Your task to perform on an android device: turn on location history Image 0: 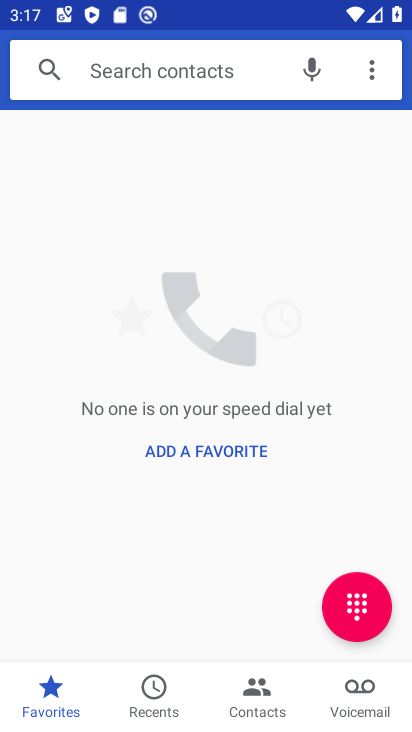
Step 0: press home button
Your task to perform on an android device: turn on location history Image 1: 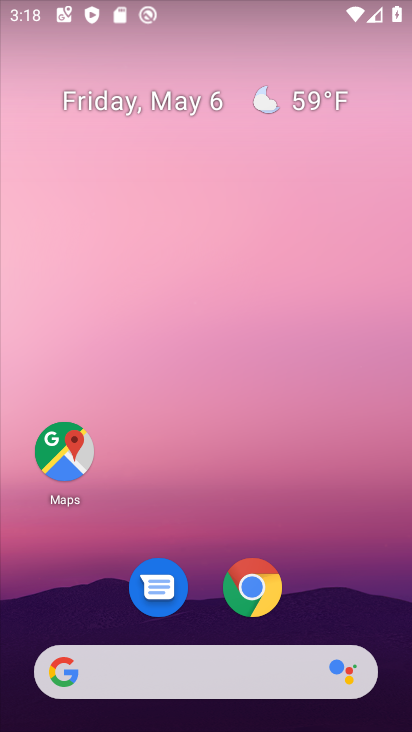
Step 1: drag from (337, 611) to (324, 136)
Your task to perform on an android device: turn on location history Image 2: 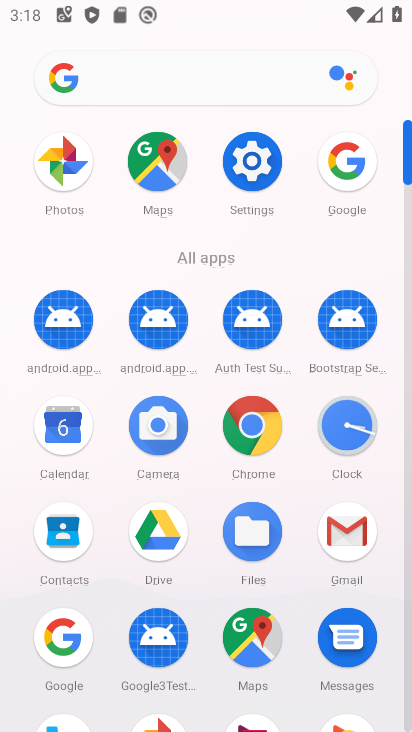
Step 2: click (247, 173)
Your task to perform on an android device: turn on location history Image 3: 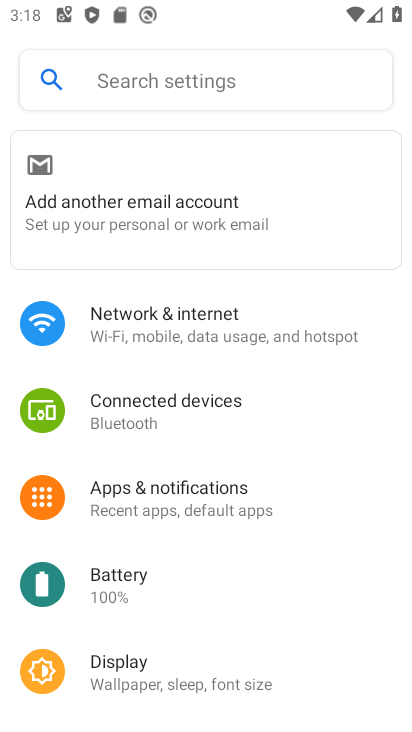
Step 3: drag from (186, 650) to (240, 302)
Your task to perform on an android device: turn on location history Image 4: 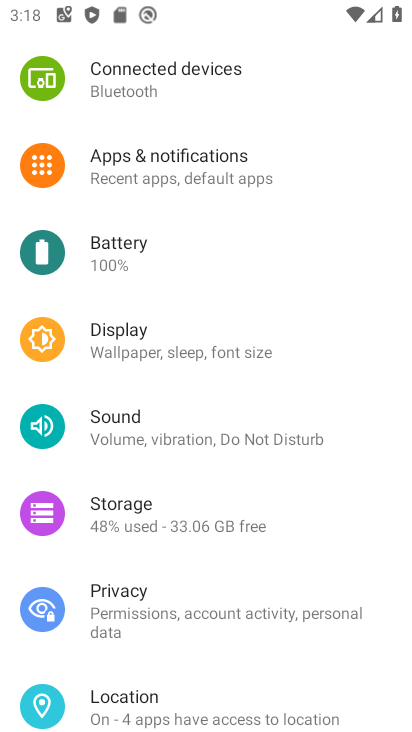
Step 4: drag from (169, 650) to (219, 243)
Your task to perform on an android device: turn on location history Image 5: 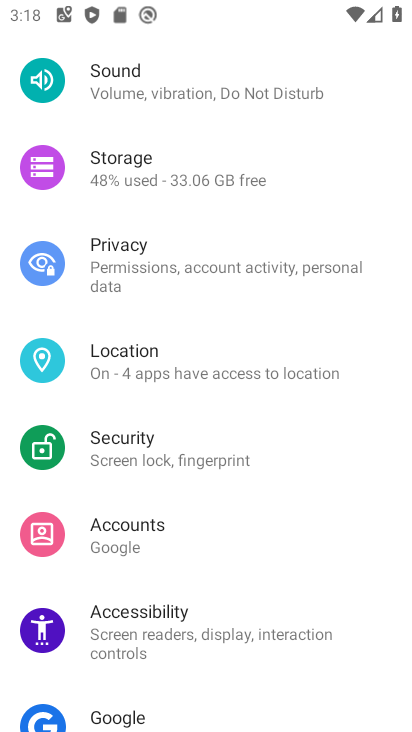
Step 5: click (128, 373)
Your task to perform on an android device: turn on location history Image 6: 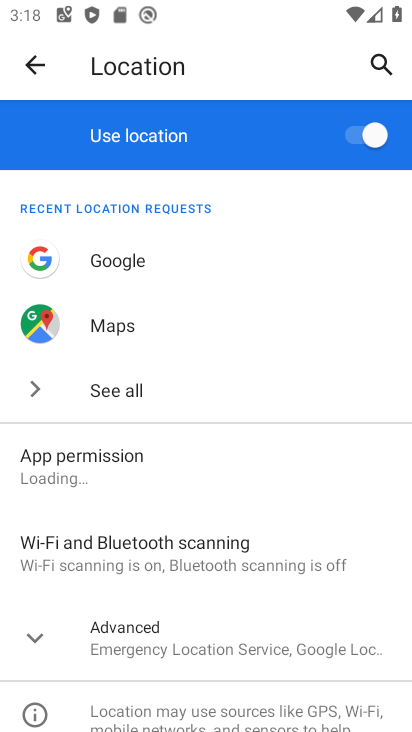
Step 6: drag from (96, 625) to (163, 307)
Your task to perform on an android device: turn on location history Image 7: 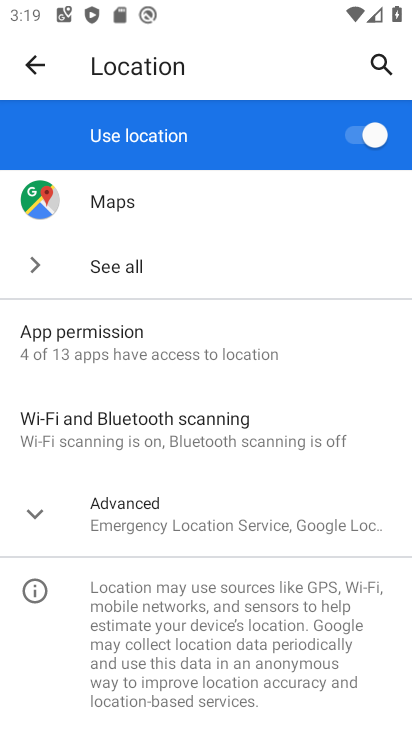
Step 7: click (166, 514)
Your task to perform on an android device: turn on location history Image 8: 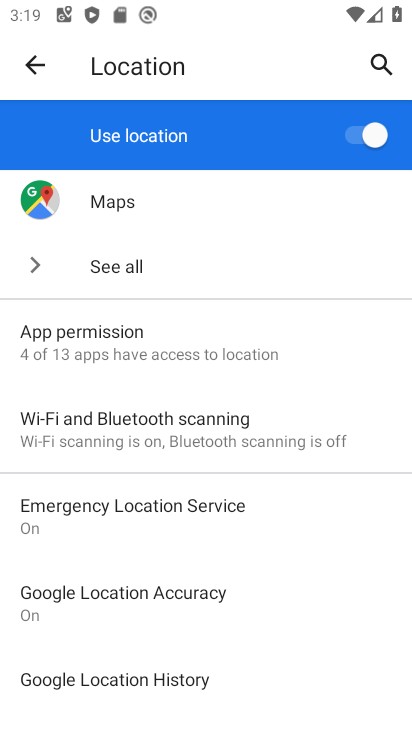
Step 8: drag from (183, 658) to (177, 270)
Your task to perform on an android device: turn on location history Image 9: 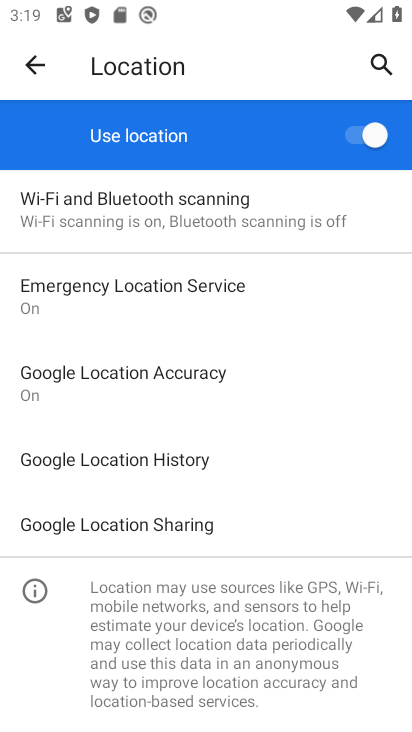
Step 9: click (77, 463)
Your task to perform on an android device: turn on location history Image 10: 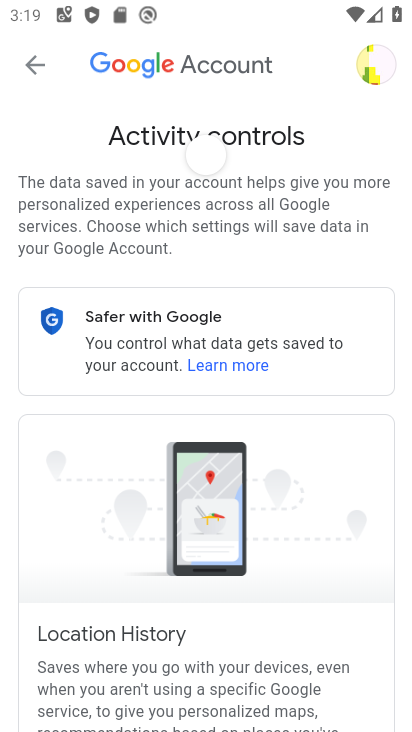
Step 10: task complete